Your task to perform on an android device: check battery use Image 0: 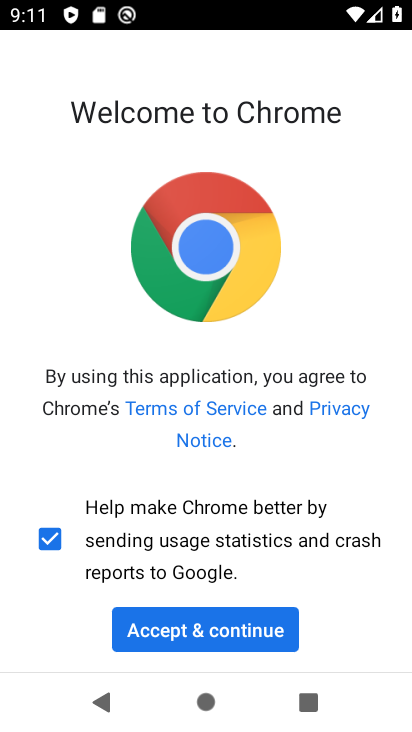
Step 0: press home button
Your task to perform on an android device: check battery use Image 1: 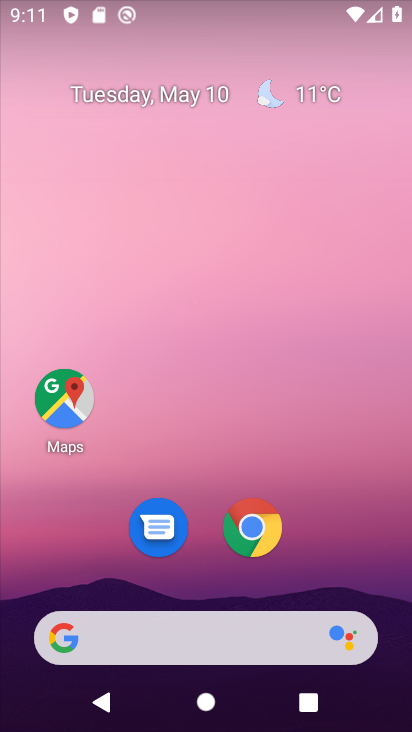
Step 1: drag from (328, 8) to (270, 535)
Your task to perform on an android device: check battery use Image 2: 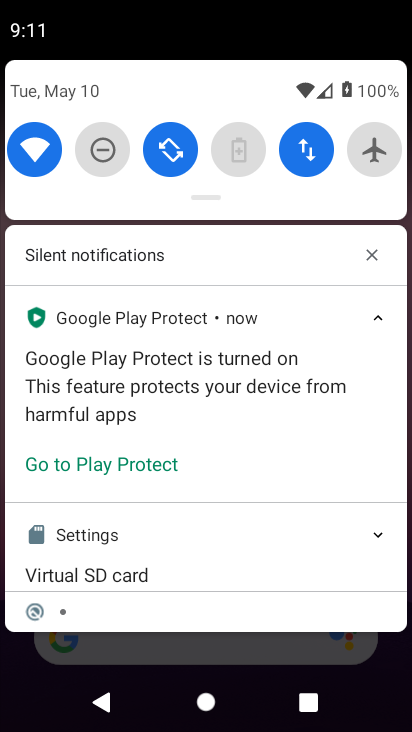
Step 2: drag from (213, 198) to (243, 405)
Your task to perform on an android device: check battery use Image 3: 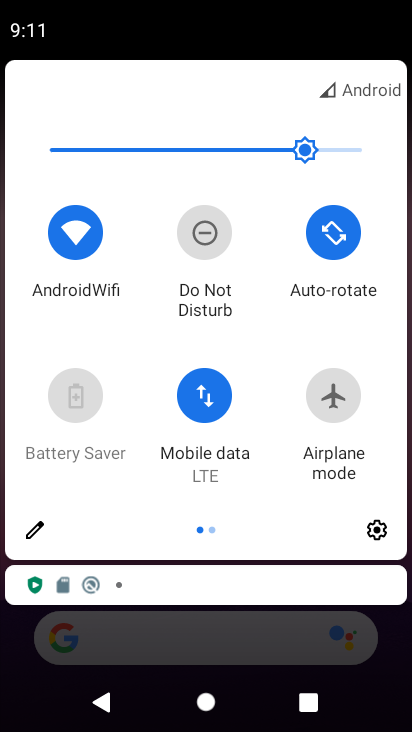
Step 3: click (384, 530)
Your task to perform on an android device: check battery use Image 4: 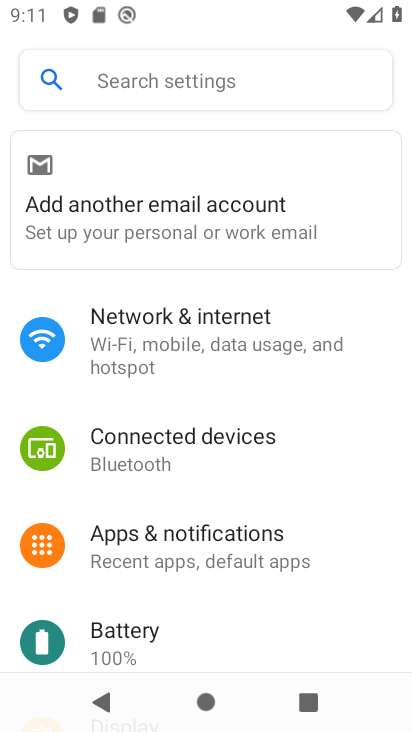
Step 4: click (250, 632)
Your task to perform on an android device: check battery use Image 5: 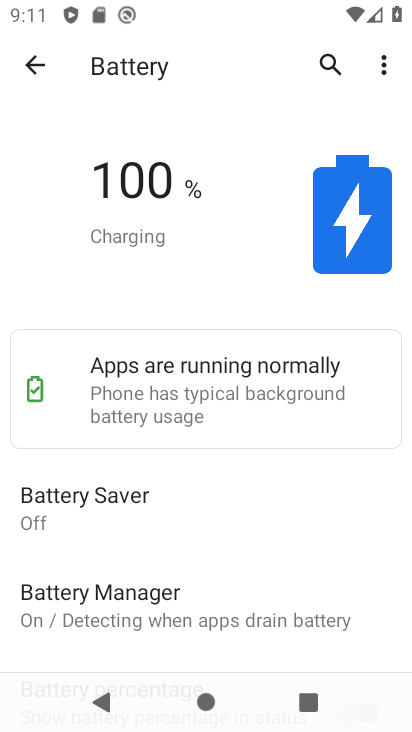
Step 5: click (377, 61)
Your task to perform on an android device: check battery use Image 6: 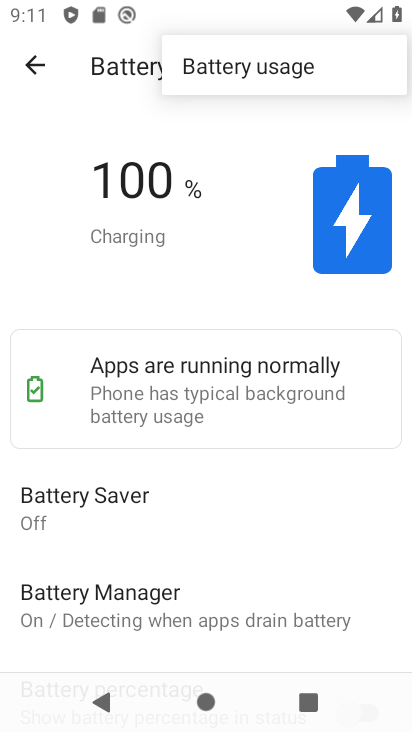
Step 6: click (307, 73)
Your task to perform on an android device: check battery use Image 7: 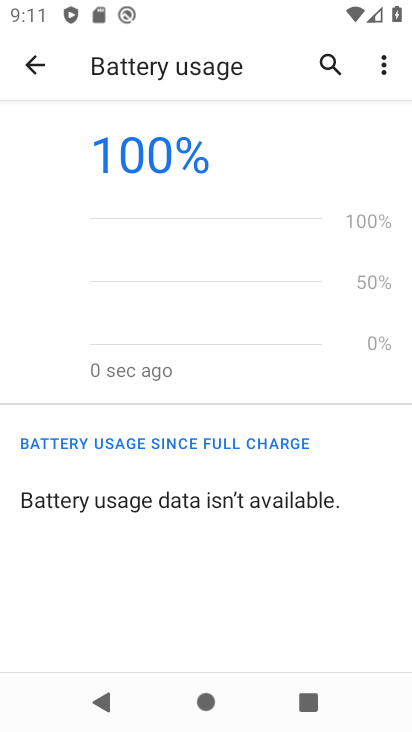
Step 7: task complete